Your task to perform on an android device: Open ESPN.com Image 0: 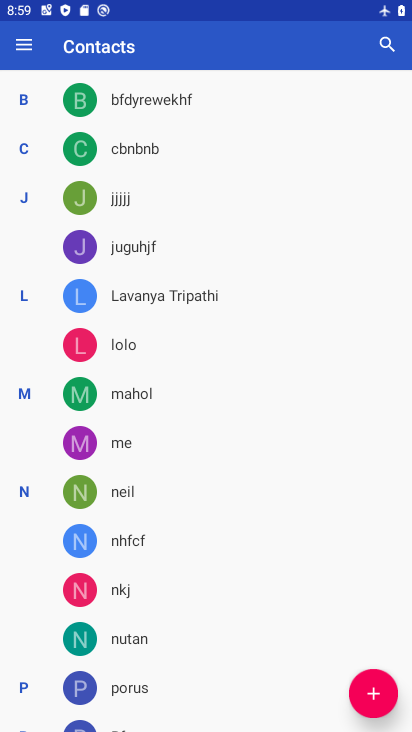
Step 0: press home button
Your task to perform on an android device: Open ESPN.com Image 1: 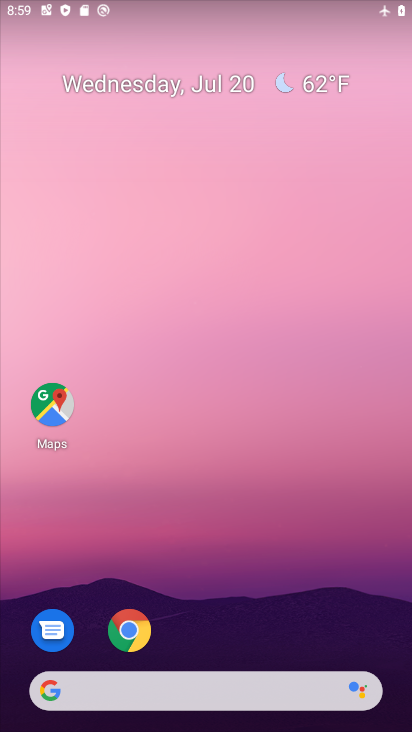
Step 1: drag from (197, 679) to (190, 74)
Your task to perform on an android device: Open ESPN.com Image 2: 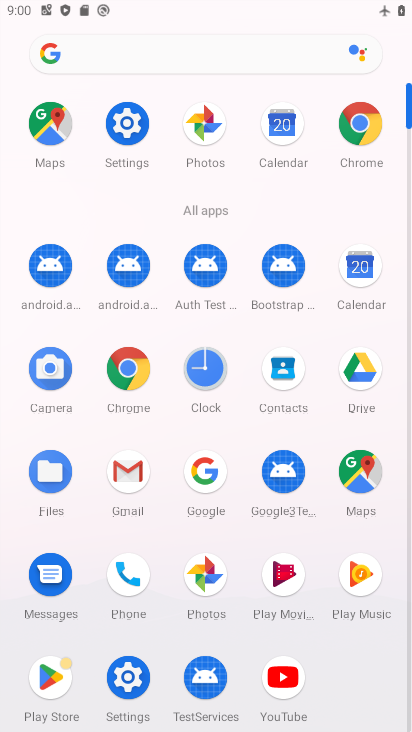
Step 2: click (137, 382)
Your task to perform on an android device: Open ESPN.com Image 3: 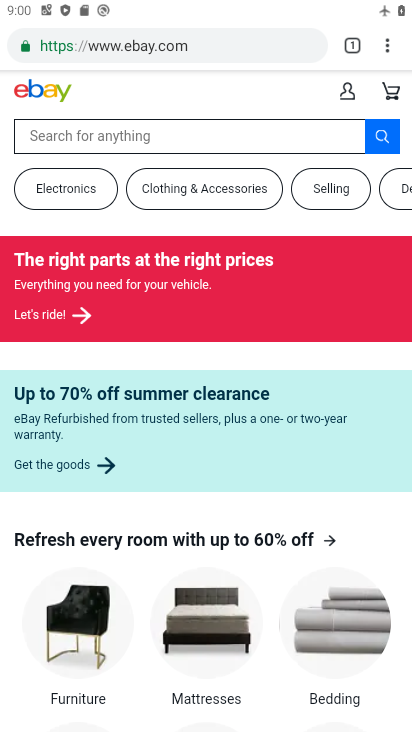
Step 3: click (171, 51)
Your task to perform on an android device: Open ESPN.com Image 4: 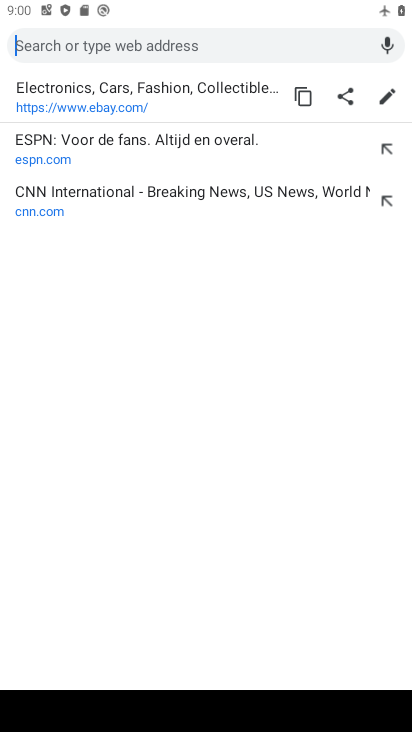
Step 4: type "espn.com"
Your task to perform on an android device: Open ESPN.com Image 5: 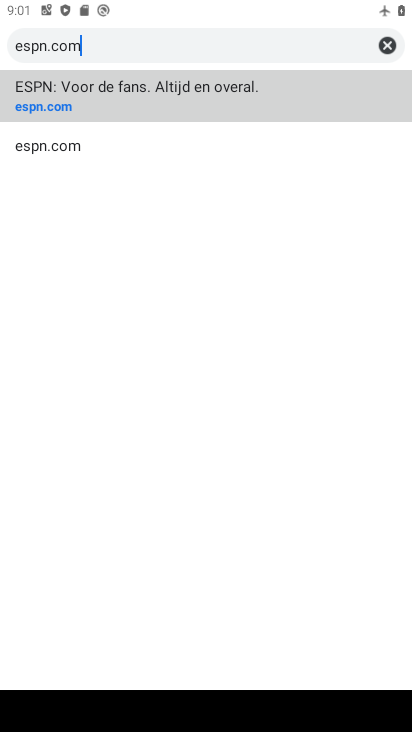
Step 5: click (170, 96)
Your task to perform on an android device: Open ESPN.com Image 6: 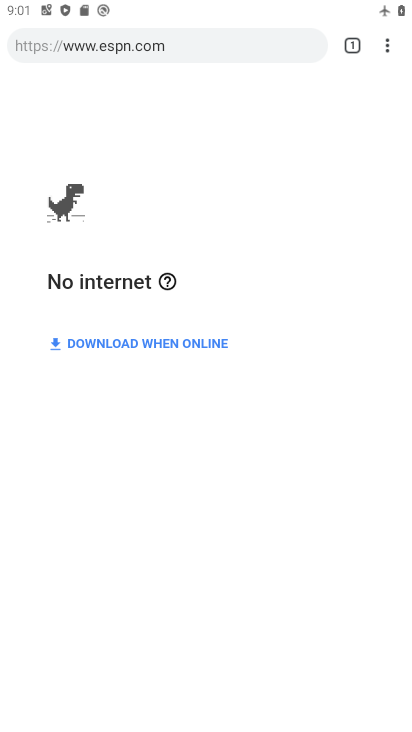
Step 6: task complete